Your task to perform on an android device: Open Google Maps and go to "Timeline" Image 0: 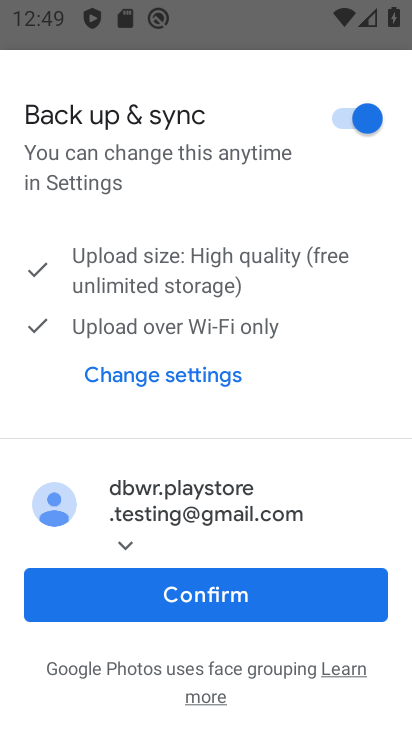
Step 0: press home button
Your task to perform on an android device: Open Google Maps and go to "Timeline" Image 1: 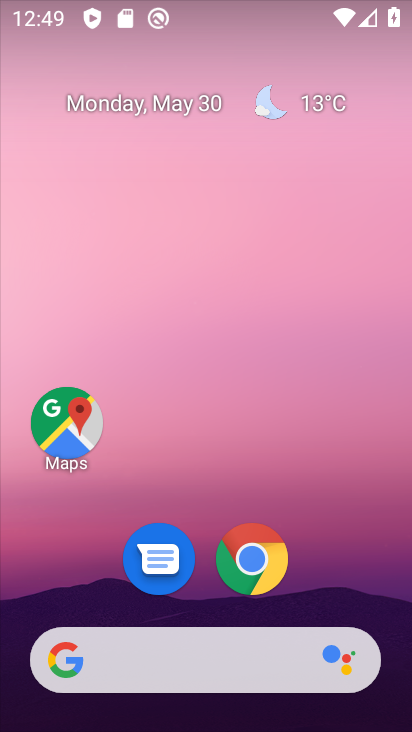
Step 1: click (91, 425)
Your task to perform on an android device: Open Google Maps and go to "Timeline" Image 2: 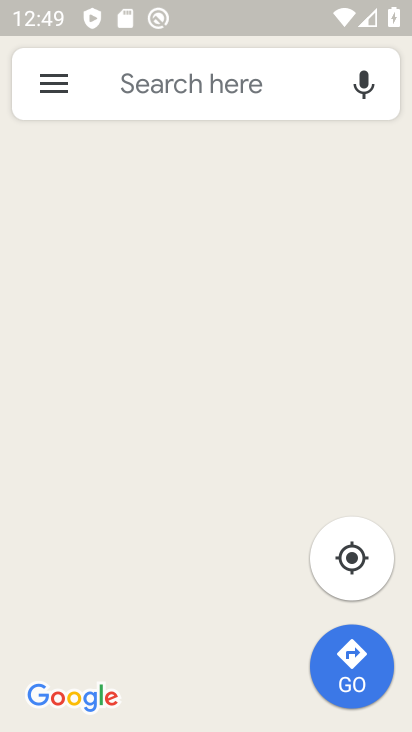
Step 2: click (43, 82)
Your task to perform on an android device: Open Google Maps and go to "Timeline" Image 3: 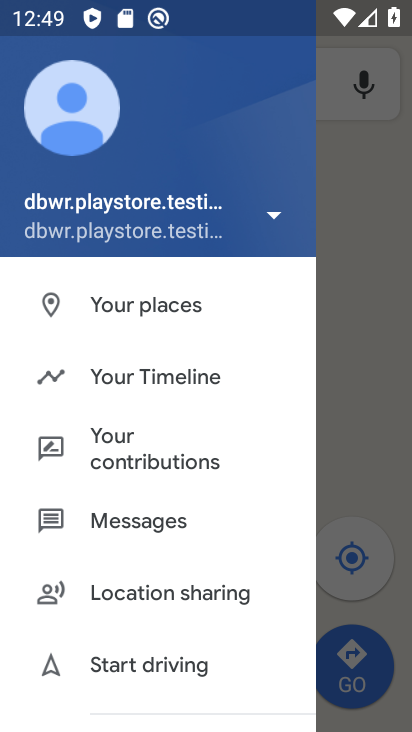
Step 3: click (140, 370)
Your task to perform on an android device: Open Google Maps and go to "Timeline" Image 4: 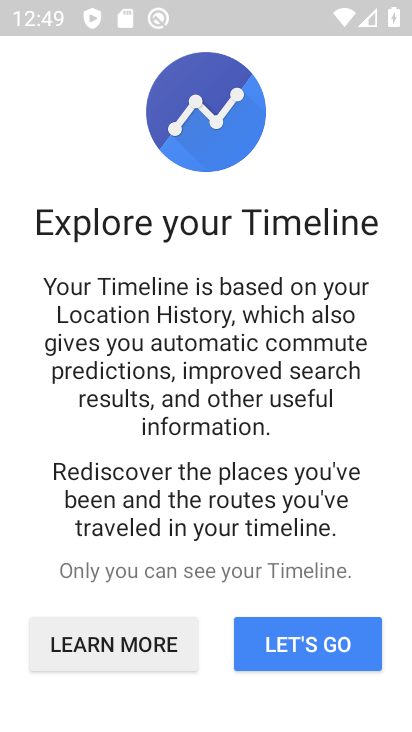
Step 4: click (347, 643)
Your task to perform on an android device: Open Google Maps and go to "Timeline" Image 5: 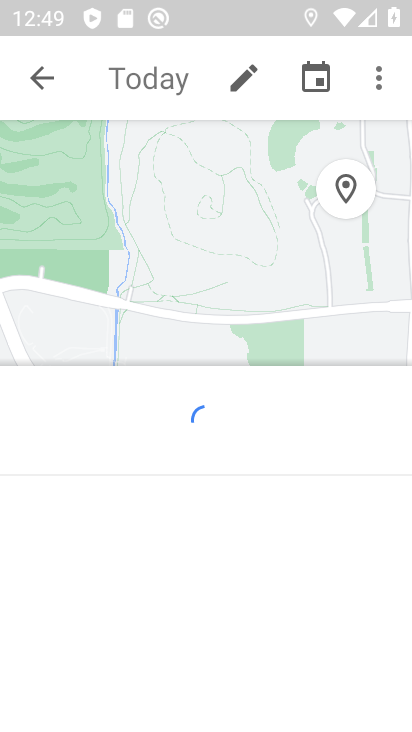
Step 5: click (314, 649)
Your task to perform on an android device: Open Google Maps and go to "Timeline" Image 6: 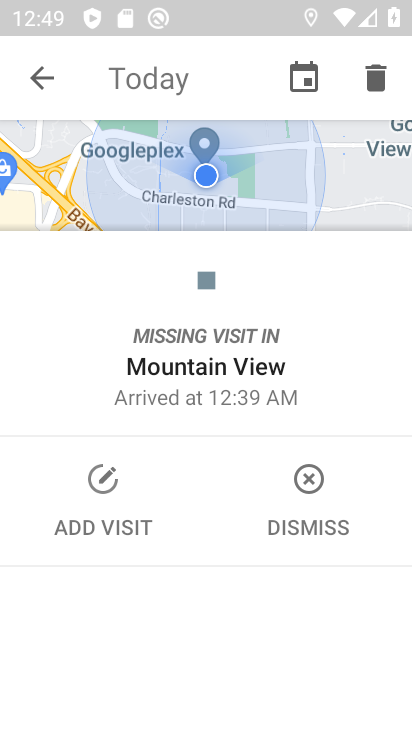
Step 6: task complete